Your task to perform on an android device: What is the recent news? Image 0: 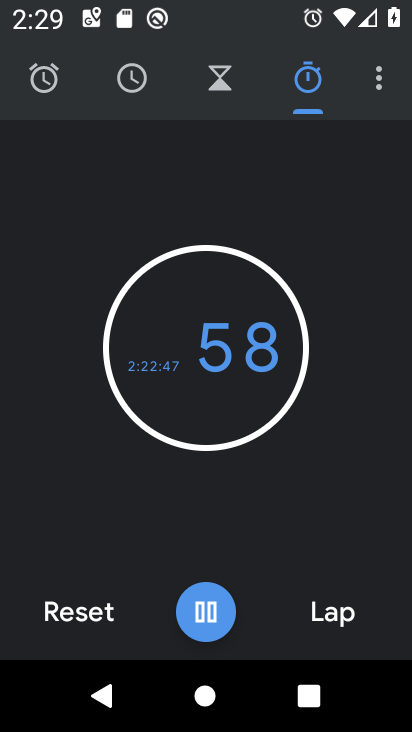
Step 0: press home button
Your task to perform on an android device: What is the recent news? Image 1: 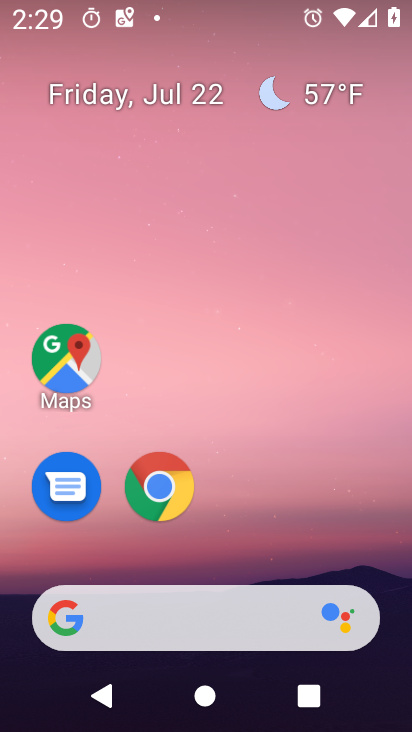
Step 1: task complete